Your task to perform on an android device: empty trash in the gmail app Image 0: 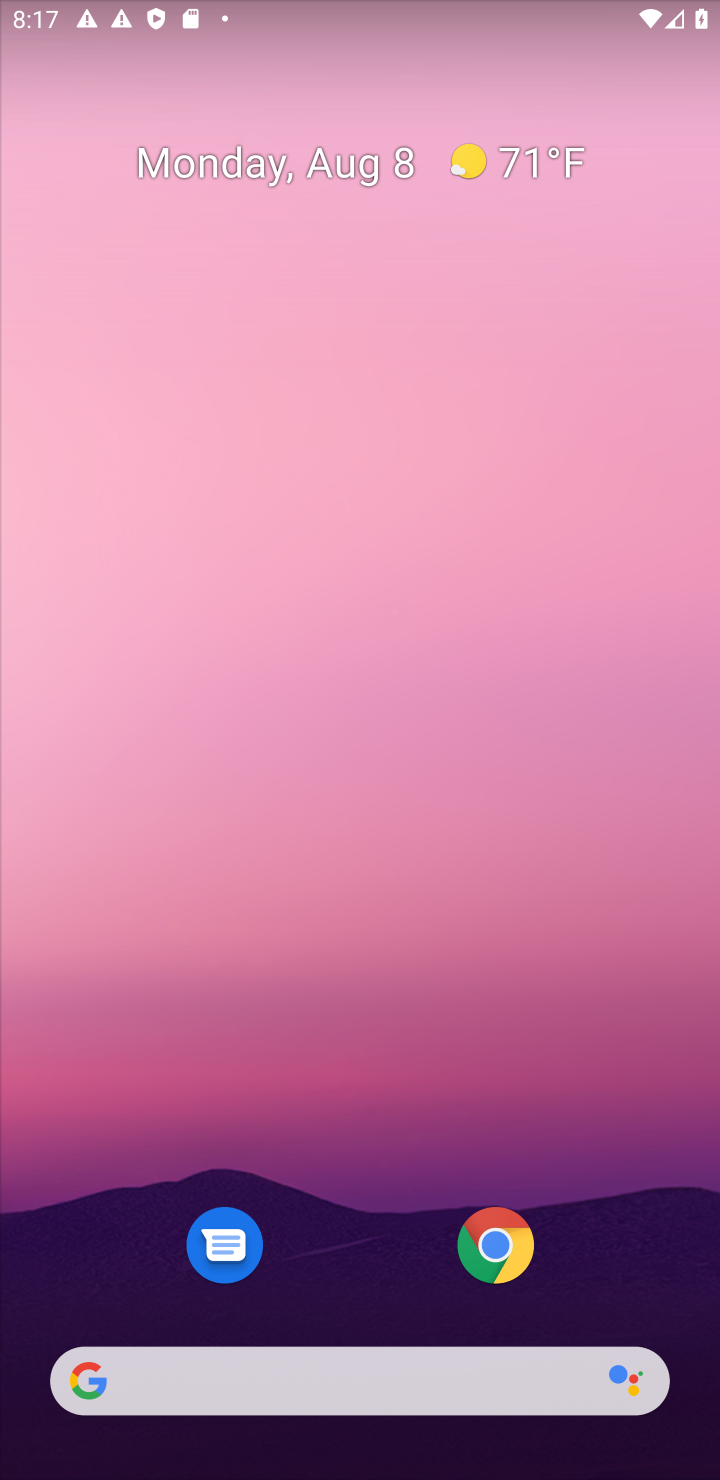
Step 0: drag from (382, 834) to (412, 701)
Your task to perform on an android device: empty trash in the gmail app Image 1: 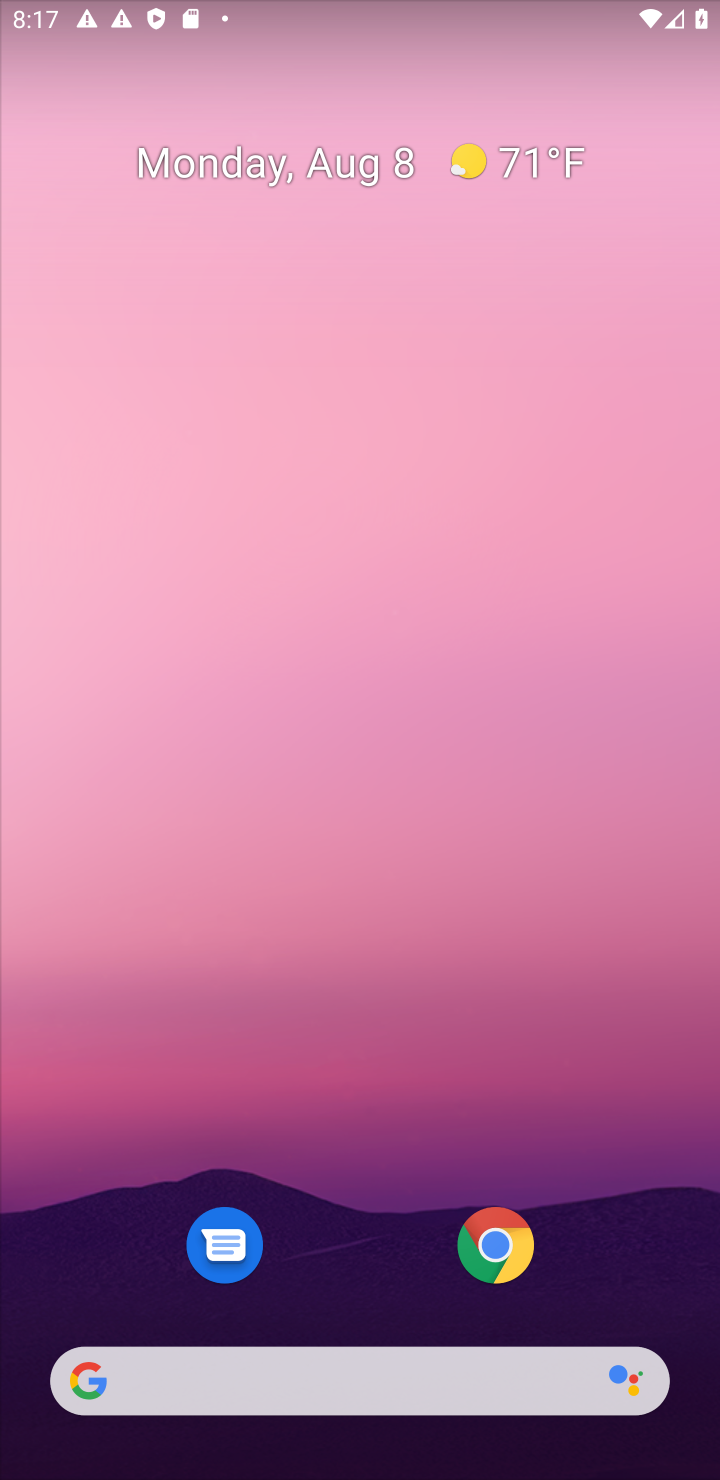
Step 1: drag from (329, 916) to (527, 37)
Your task to perform on an android device: empty trash in the gmail app Image 2: 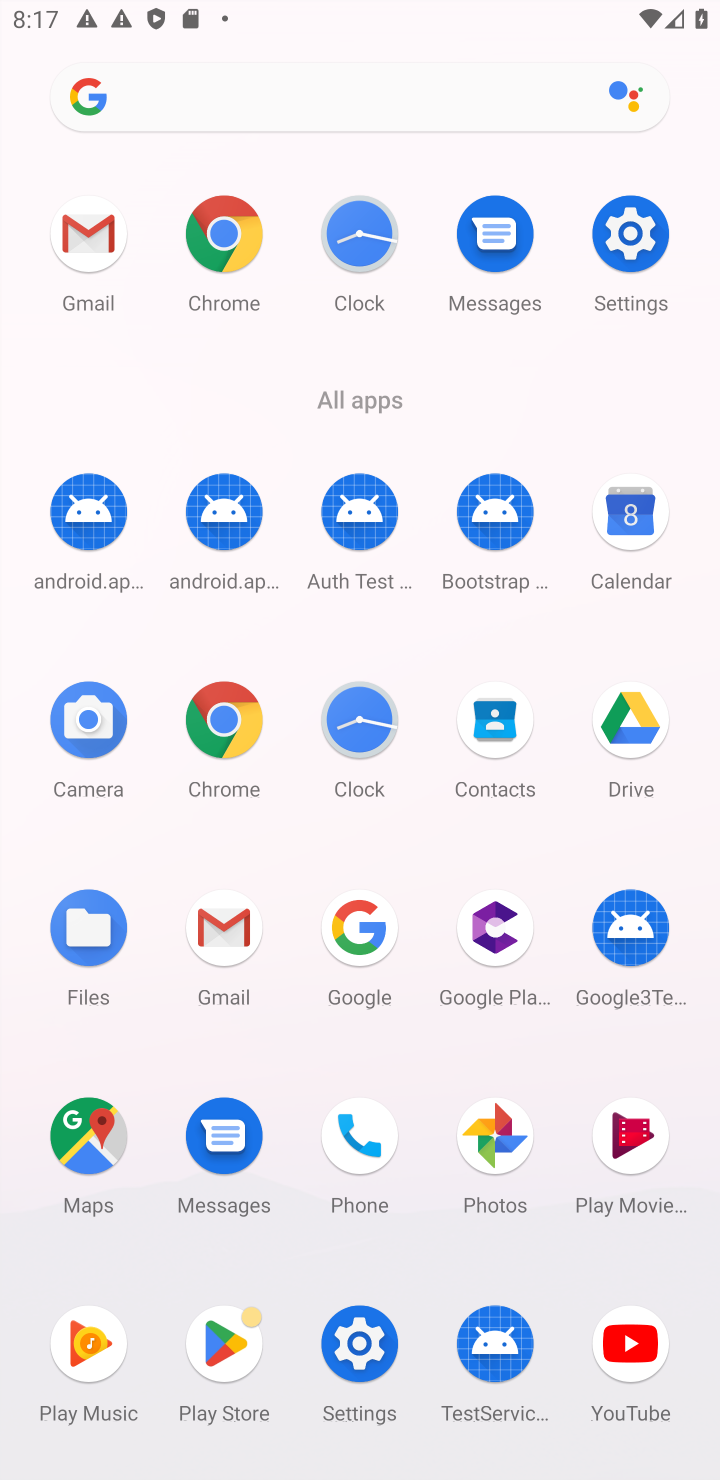
Step 2: click (232, 929)
Your task to perform on an android device: empty trash in the gmail app Image 3: 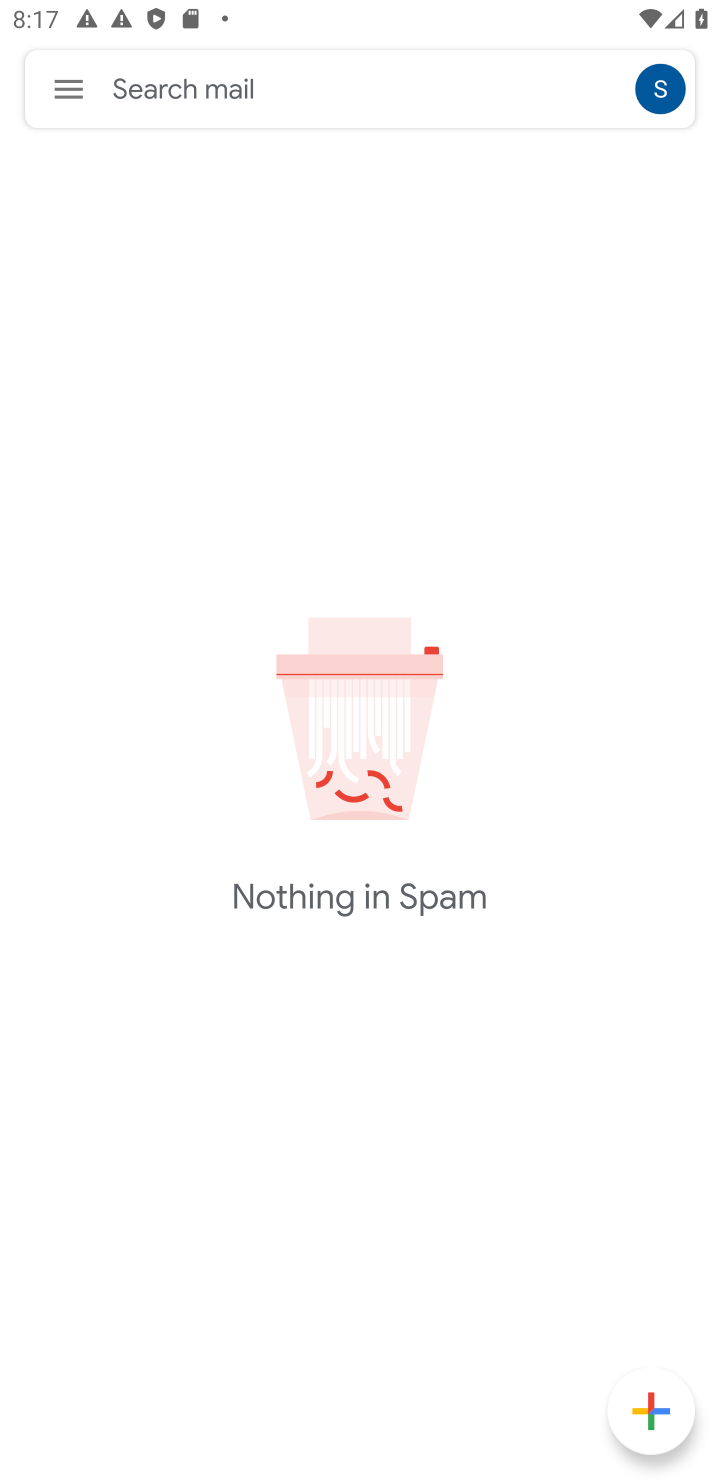
Step 3: click (60, 90)
Your task to perform on an android device: empty trash in the gmail app Image 4: 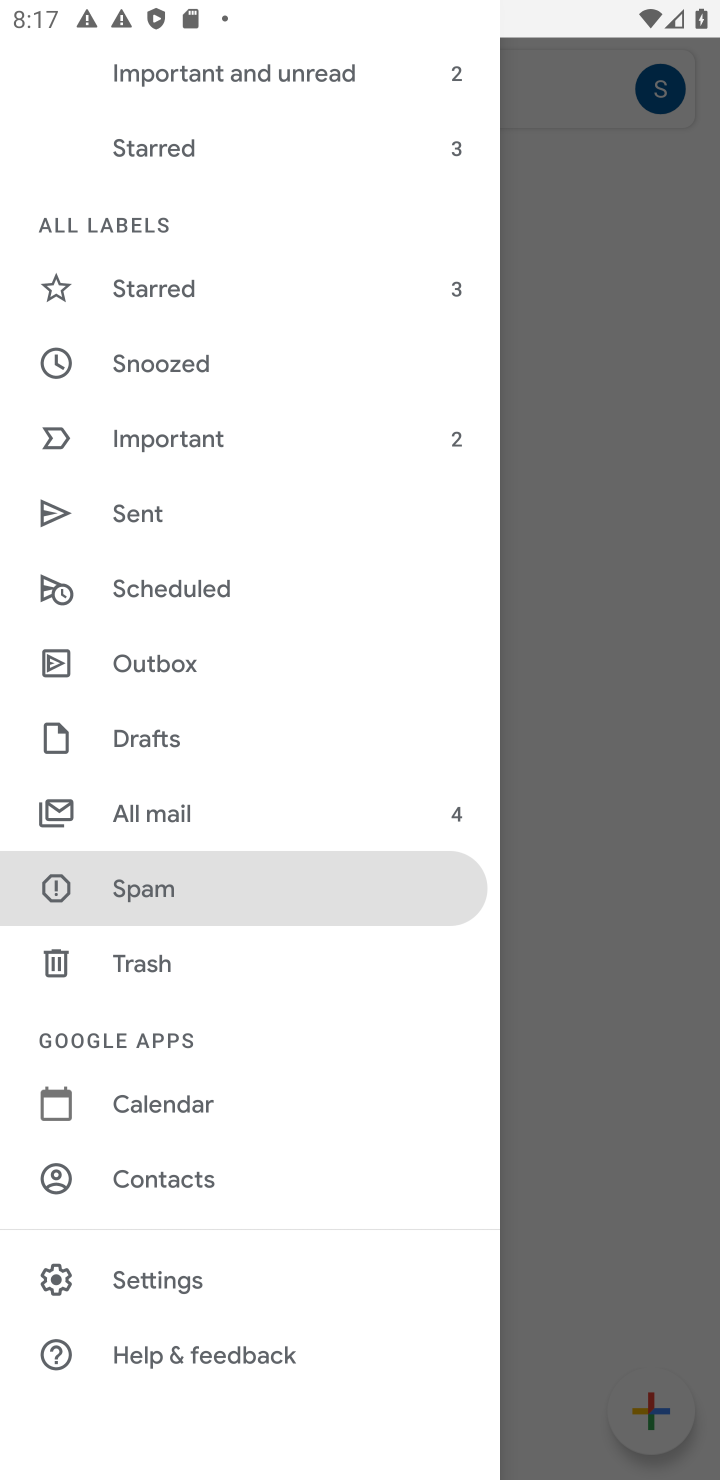
Step 4: click (157, 961)
Your task to perform on an android device: empty trash in the gmail app Image 5: 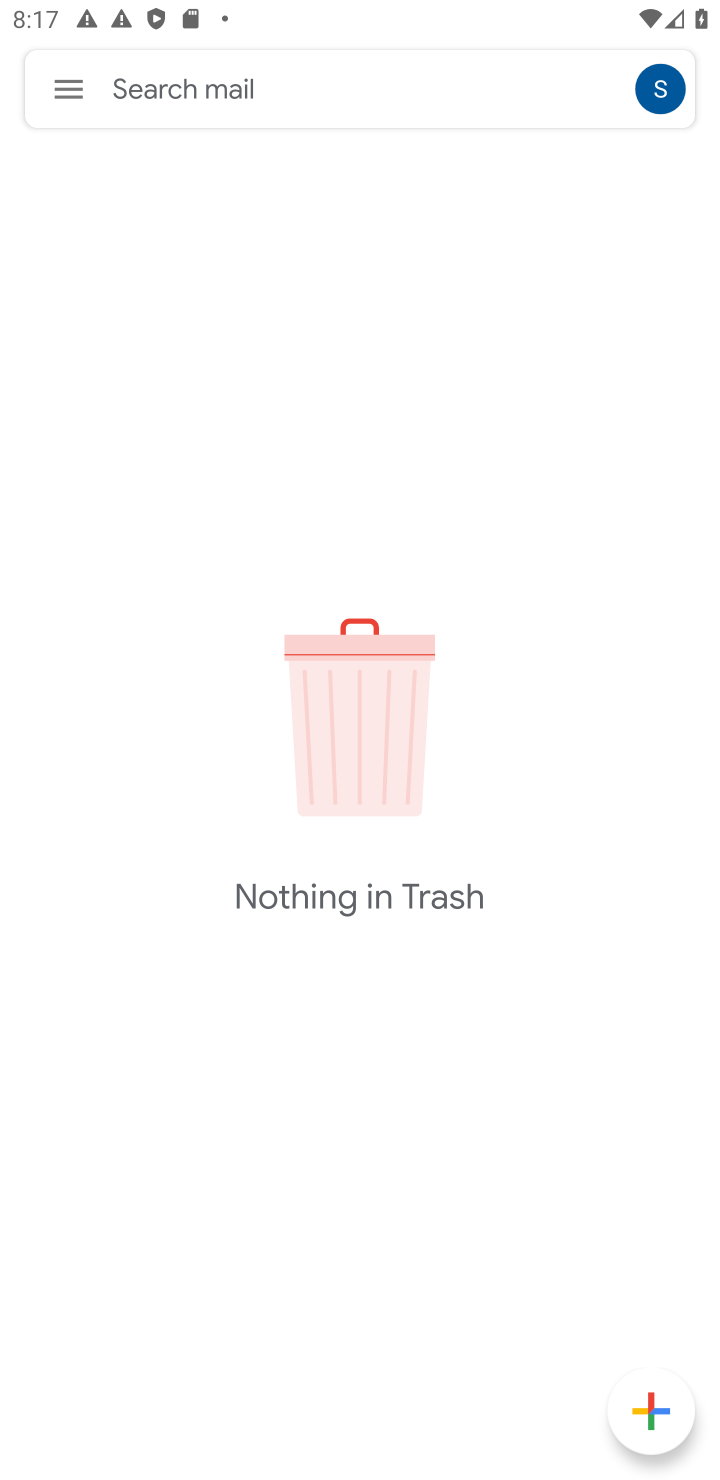
Step 5: task complete